Your task to perform on an android device: change the clock display to show seconds Image 0: 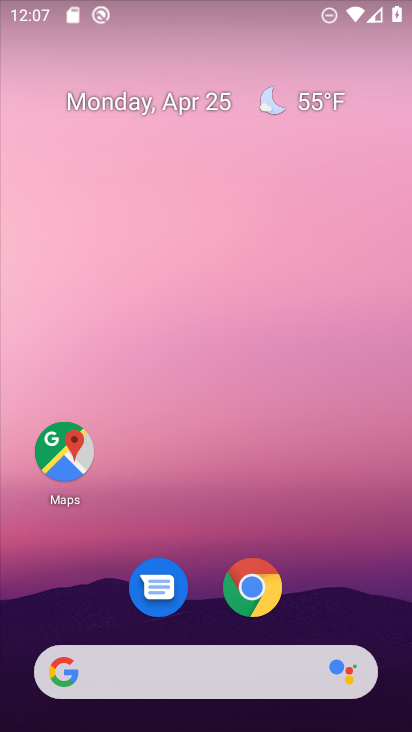
Step 0: drag from (357, 600) to (326, 105)
Your task to perform on an android device: change the clock display to show seconds Image 1: 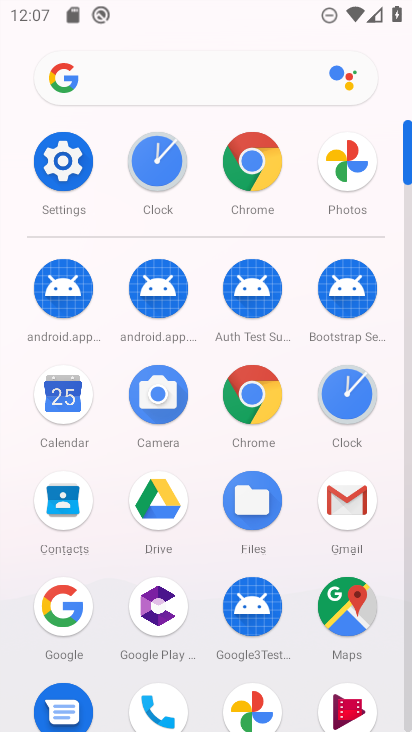
Step 1: click (343, 395)
Your task to perform on an android device: change the clock display to show seconds Image 2: 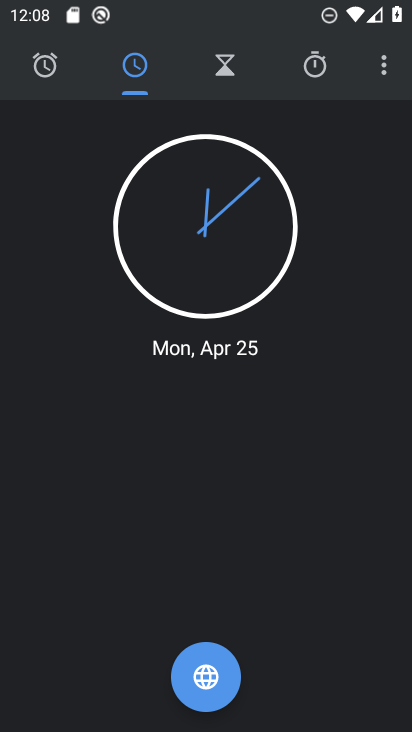
Step 2: click (380, 71)
Your task to perform on an android device: change the clock display to show seconds Image 3: 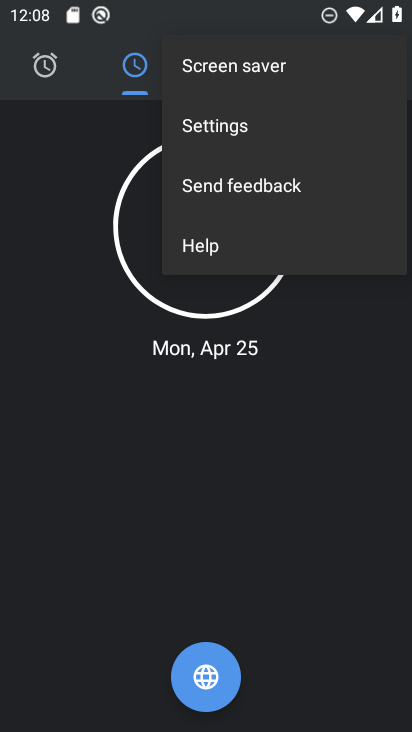
Step 3: click (268, 132)
Your task to perform on an android device: change the clock display to show seconds Image 4: 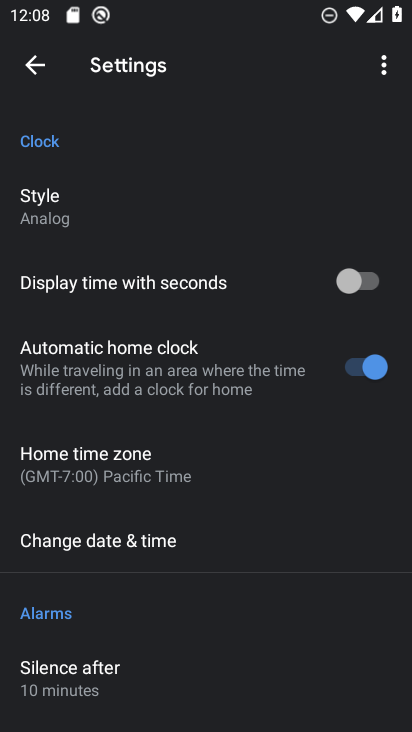
Step 4: click (329, 281)
Your task to perform on an android device: change the clock display to show seconds Image 5: 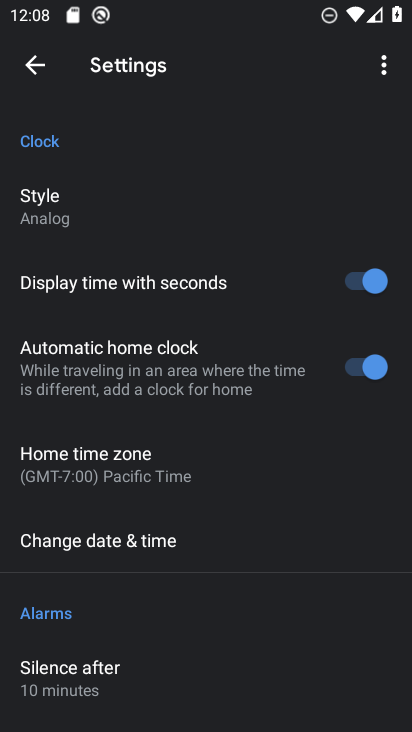
Step 5: task complete